Your task to perform on an android device: When is my next meeting? Image 0: 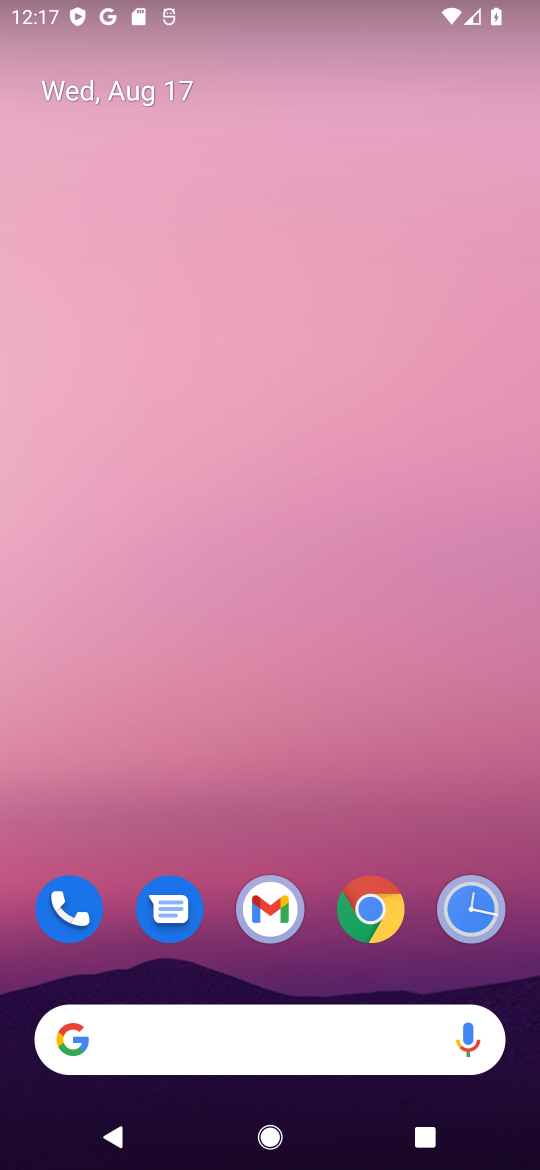
Step 0: drag from (311, 976) to (241, 353)
Your task to perform on an android device: When is my next meeting? Image 1: 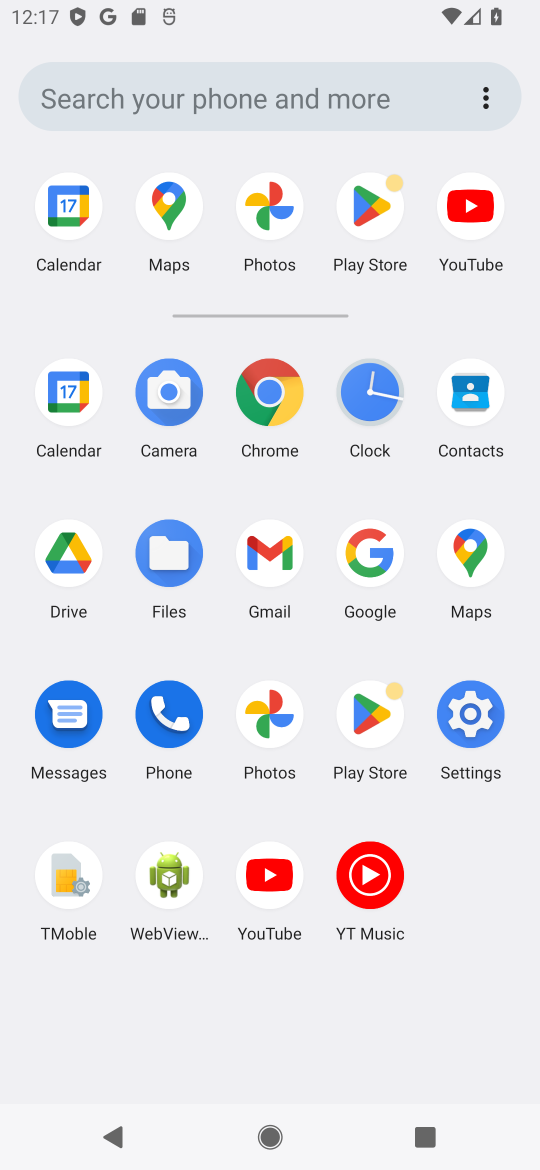
Step 1: click (68, 396)
Your task to perform on an android device: When is my next meeting? Image 2: 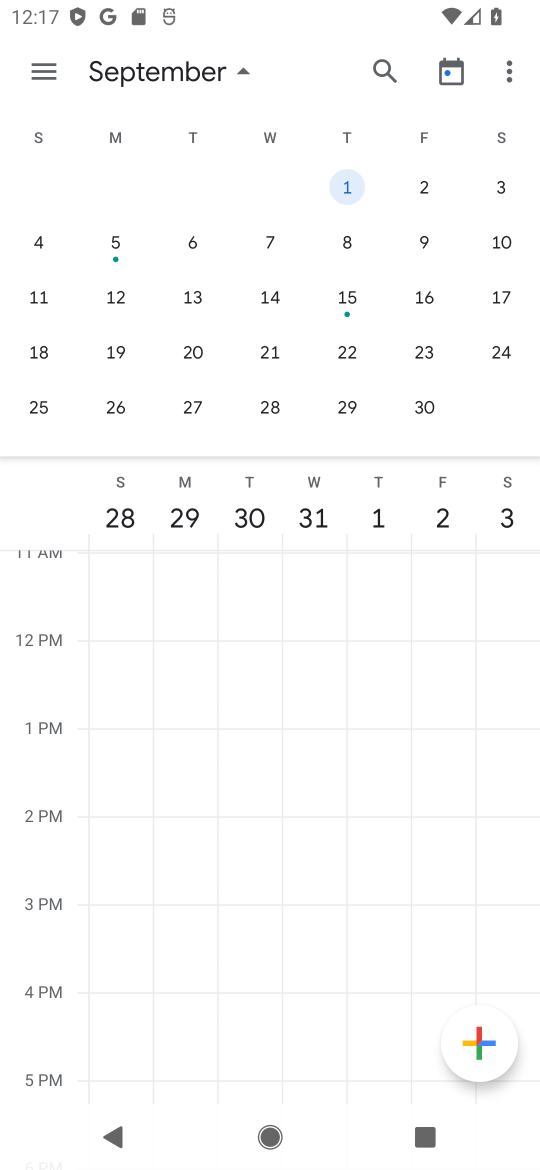
Step 2: drag from (68, 282) to (507, 359)
Your task to perform on an android device: When is my next meeting? Image 3: 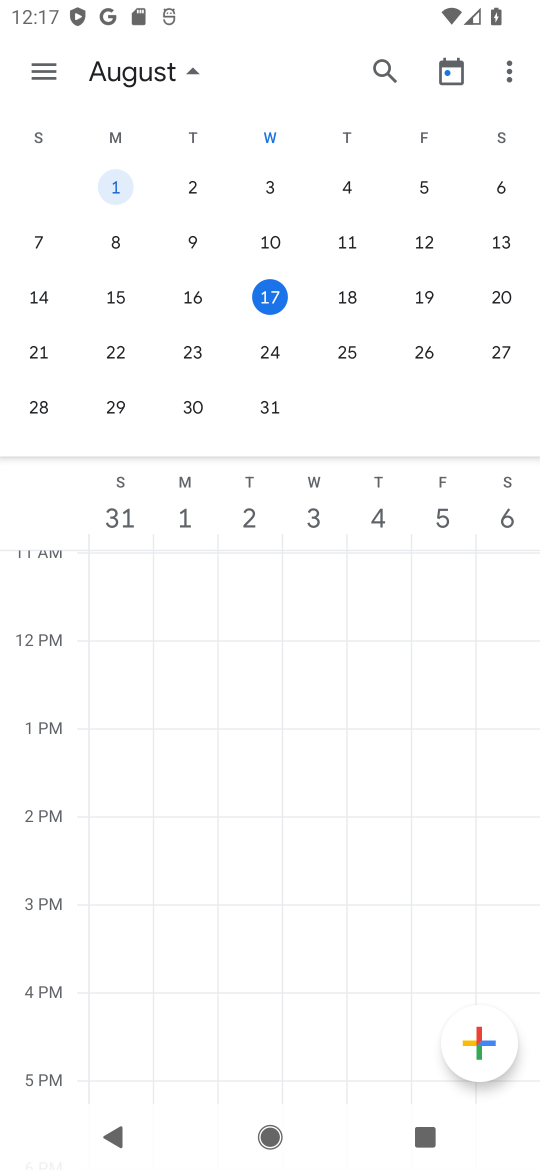
Step 3: click (270, 298)
Your task to perform on an android device: When is my next meeting? Image 4: 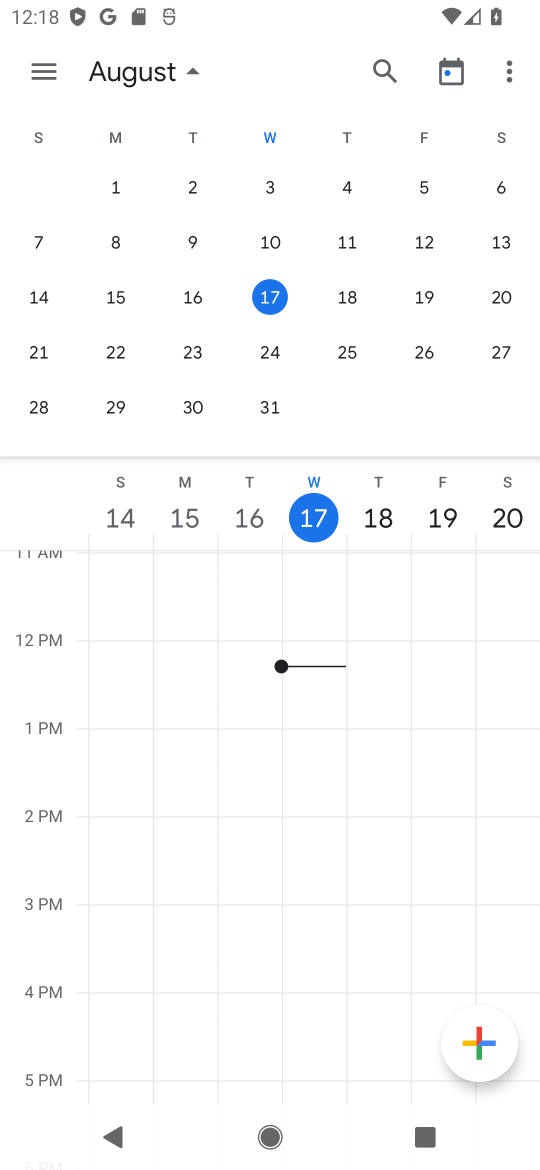
Step 4: task complete